Your task to perform on an android device: turn off airplane mode Image 0: 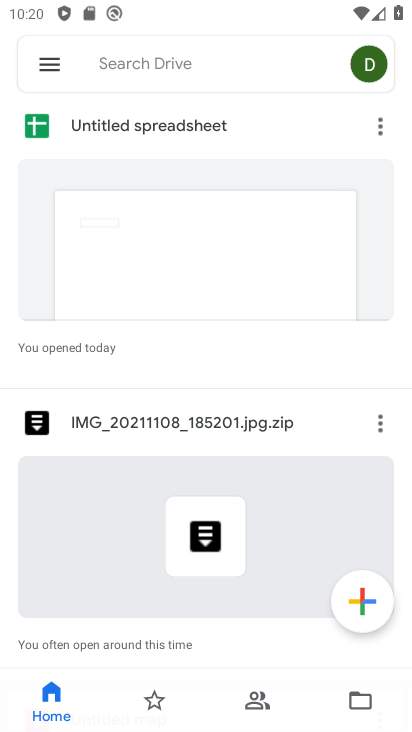
Step 0: press home button
Your task to perform on an android device: turn off airplane mode Image 1: 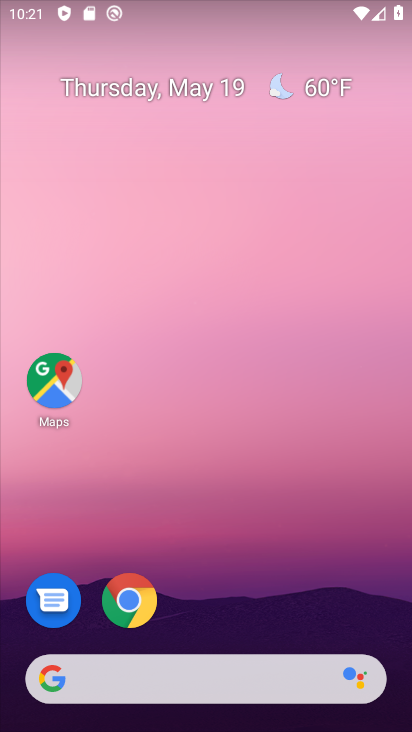
Step 1: drag from (346, 615) to (353, 171)
Your task to perform on an android device: turn off airplane mode Image 2: 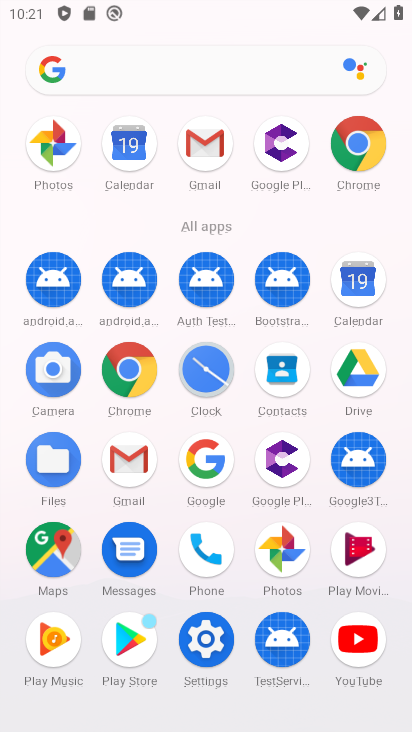
Step 2: click (230, 654)
Your task to perform on an android device: turn off airplane mode Image 3: 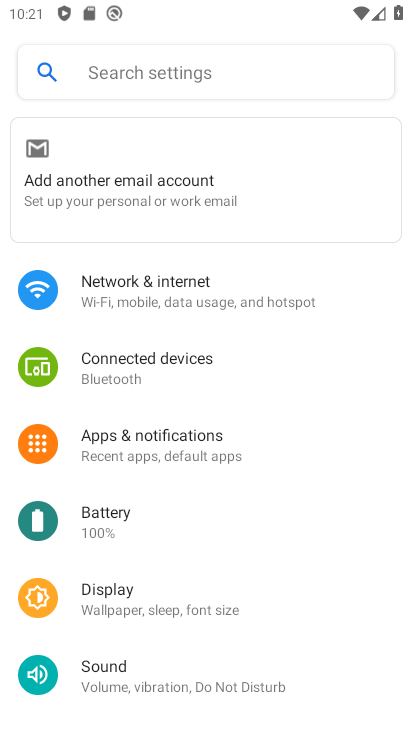
Step 3: drag from (365, 626) to (358, 552)
Your task to perform on an android device: turn off airplane mode Image 4: 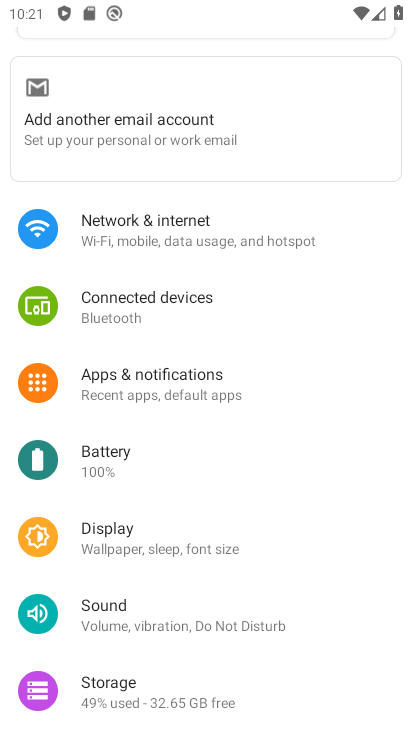
Step 4: drag from (351, 621) to (350, 546)
Your task to perform on an android device: turn off airplane mode Image 5: 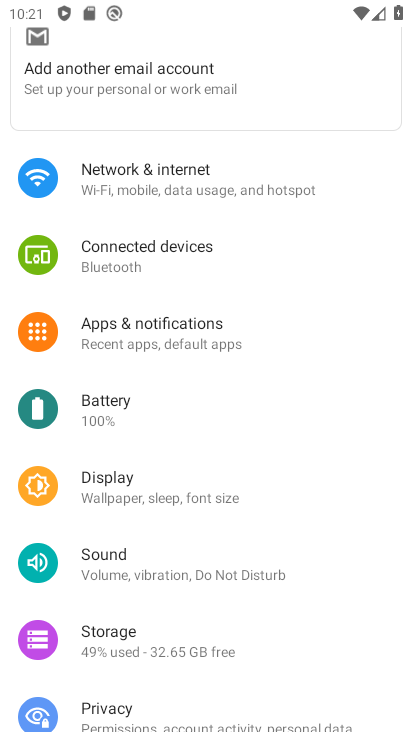
Step 5: drag from (354, 638) to (354, 529)
Your task to perform on an android device: turn off airplane mode Image 6: 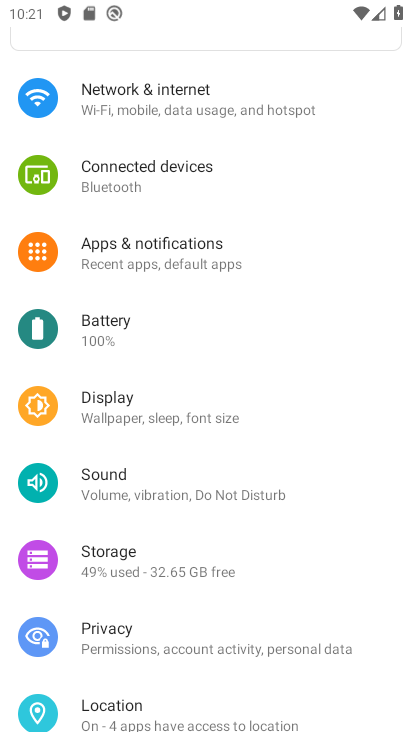
Step 6: drag from (351, 624) to (354, 544)
Your task to perform on an android device: turn off airplane mode Image 7: 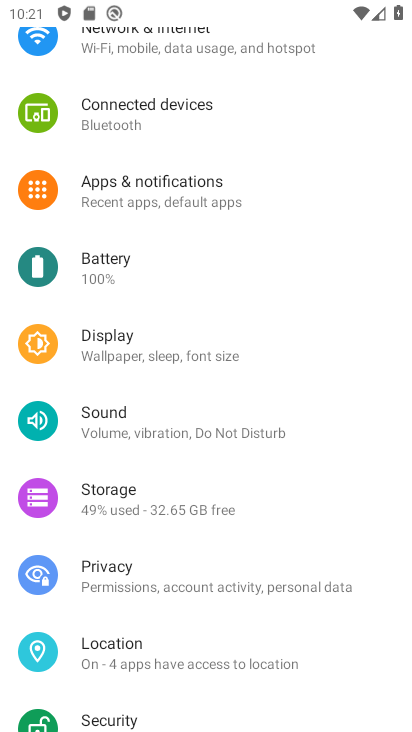
Step 7: drag from (354, 648) to (354, 579)
Your task to perform on an android device: turn off airplane mode Image 8: 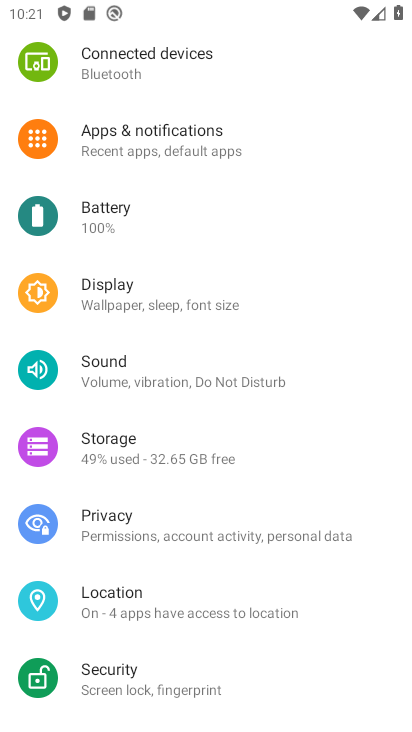
Step 8: drag from (354, 656) to (354, 579)
Your task to perform on an android device: turn off airplane mode Image 9: 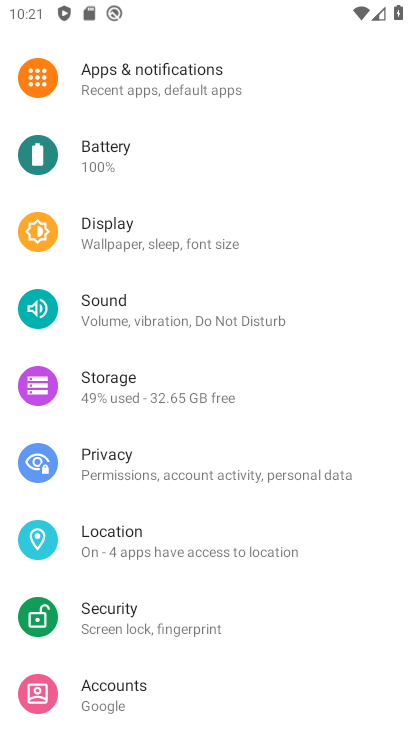
Step 9: drag from (357, 660) to (357, 568)
Your task to perform on an android device: turn off airplane mode Image 10: 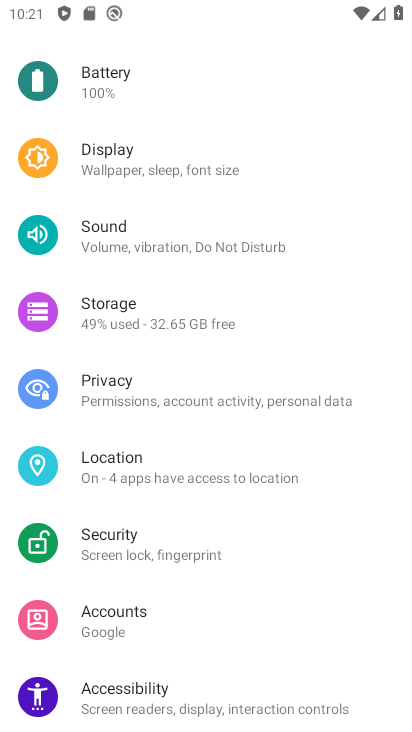
Step 10: drag from (360, 670) to (360, 577)
Your task to perform on an android device: turn off airplane mode Image 11: 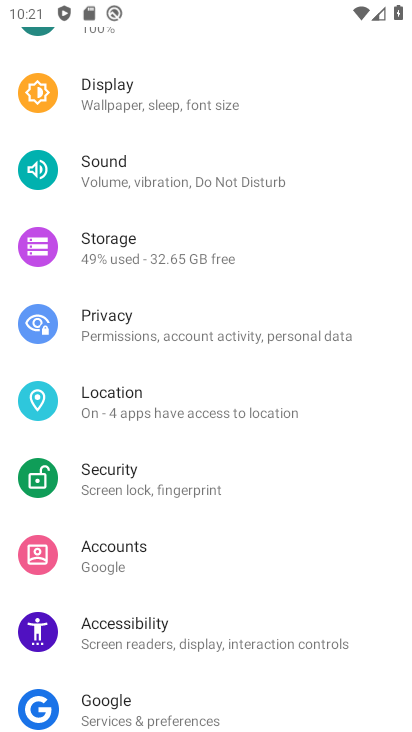
Step 11: drag from (359, 672) to (362, 592)
Your task to perform on an android device: turn off airplane mode Image 12: 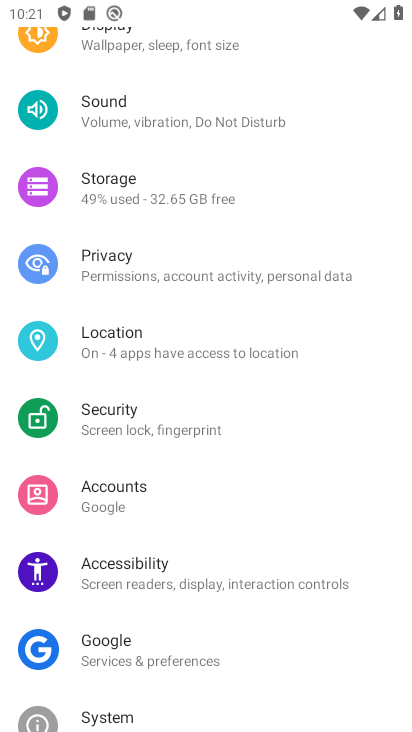
Step 12: drag from (362, 676) to (368, 588)
Your task to perform on an android device: turn off airplane mode Image 13: 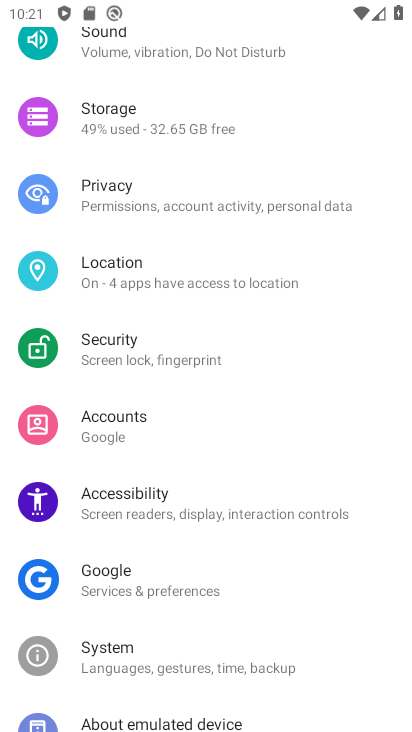
Step 13: drag from (369, 508) to (362, 581)
Your task to perform on an android device: turn off airplane mode Image 14: 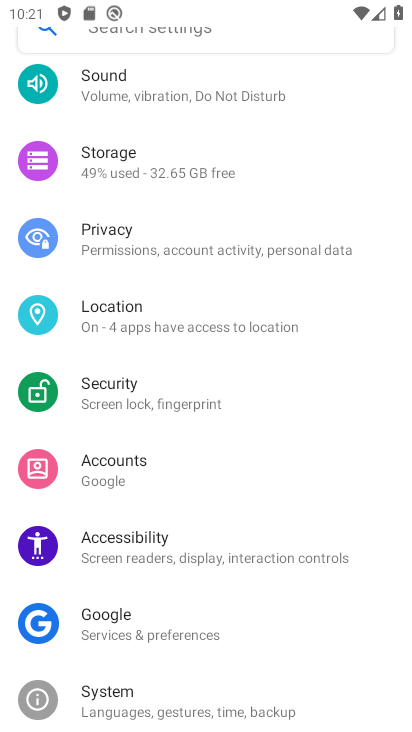
Step 14: drag from (376, 470) to (373, 555)
Your task to perform on an android device: turn off airplane mode Image 15: 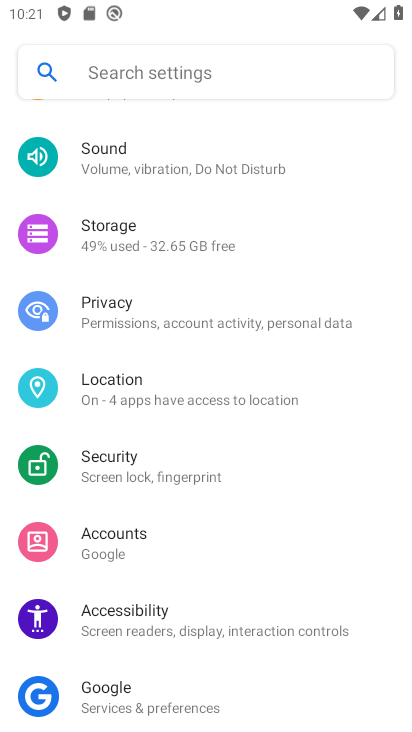
Step 15: drag from (371, 466) to (364, 554)
Your task to perform on an android device: turn off airplane mode Image 16: 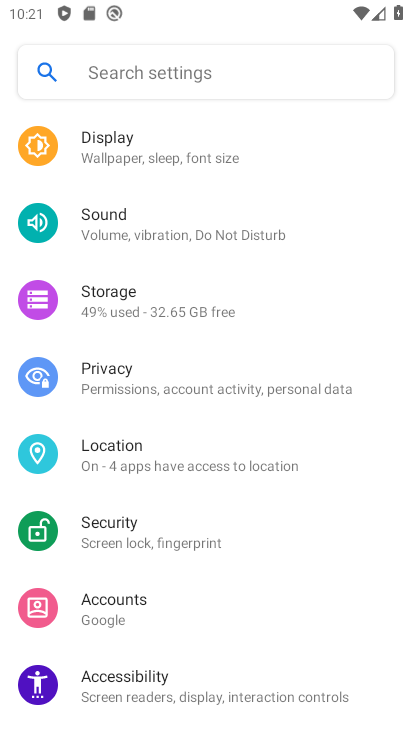
Step 16: click (363, 530)
Your task to perform on an android device: turn off airplane mode Image 17: 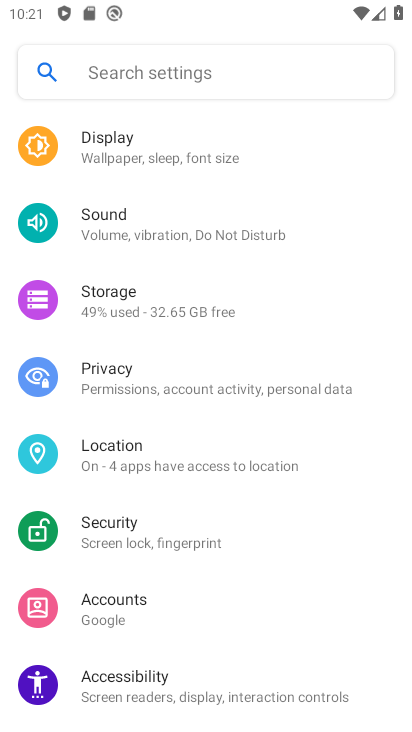
Step 17: drag from (365, 432) to (365, 575)
Your task to perform on an android device: turn off airplane mode Image 18: 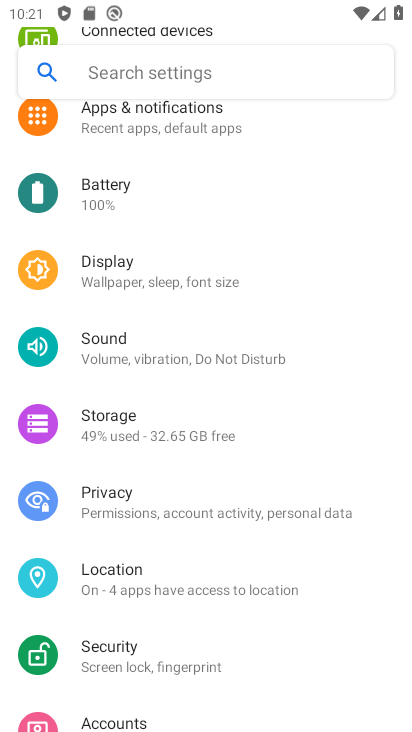
Step 18: drag from (361, 438) to (361, 537)
Your task to perform on an android device: turn off airplane mode Image 19: 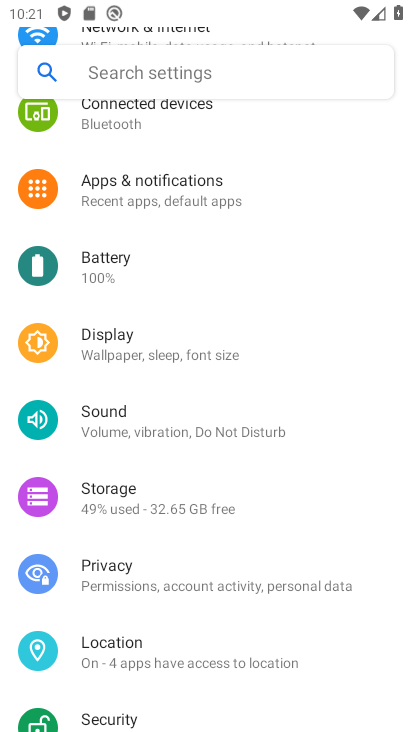
Step 19: drag from (353, 408) to (349, 509)
Your task to perform on an android device: turn off airplane mode Image 20: 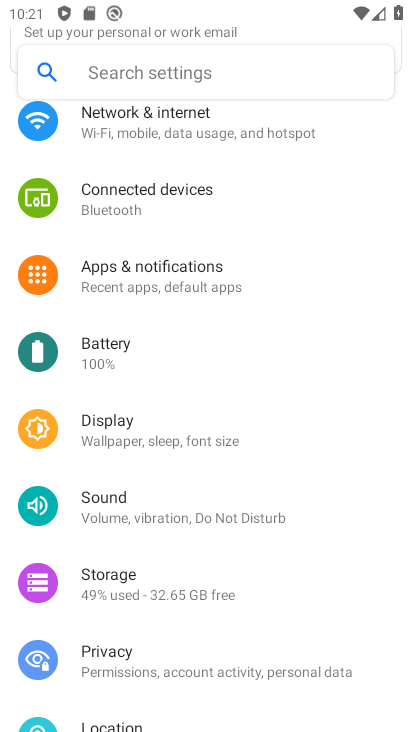
Step 20: drag from (348, 397) to (348, 500)
Your task to perform on an android device: turn off airplane mode Image 21: 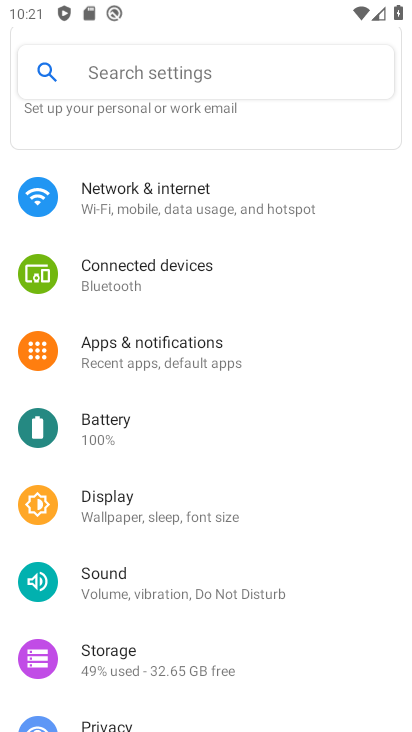
Step 21: drag from (349, 407) to (348, 496)
Your task to perform on an android device: turn off airplane mode Image 22: 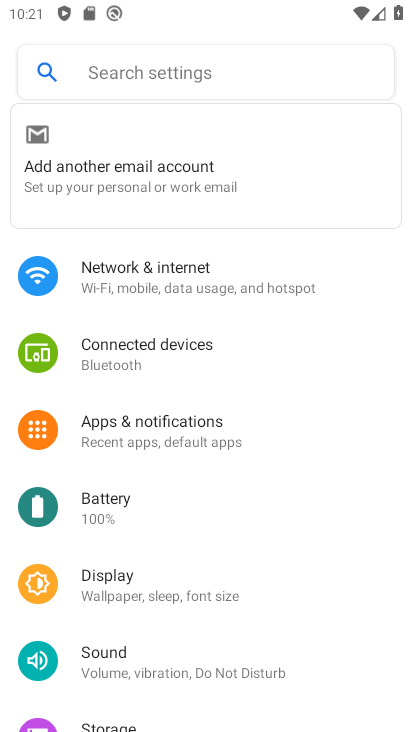
Step 22: drag from (346, 394) to (346, 477)
Your task to perform on an android device: turn off airplane mode Image 23: 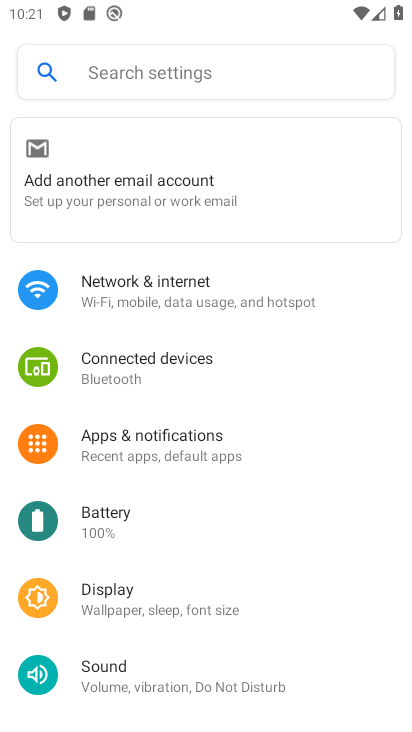
Step 23: click (325, 310)
Your task to perform on an android device: turn off airplane mode Image 24: 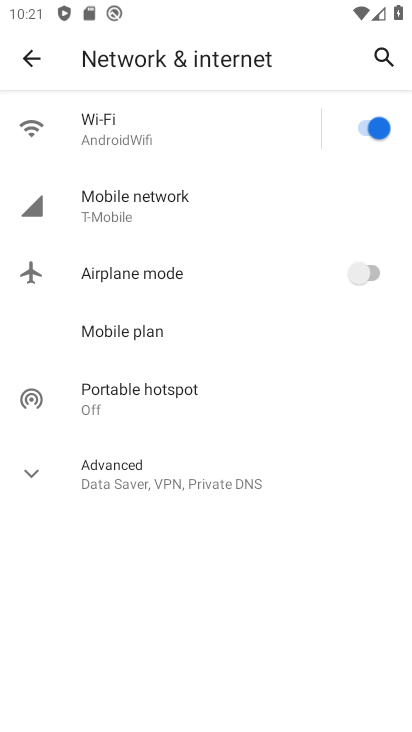
Step 24: task complete